Your task to perform on an android device: Go to Yahoo.com Image 0: 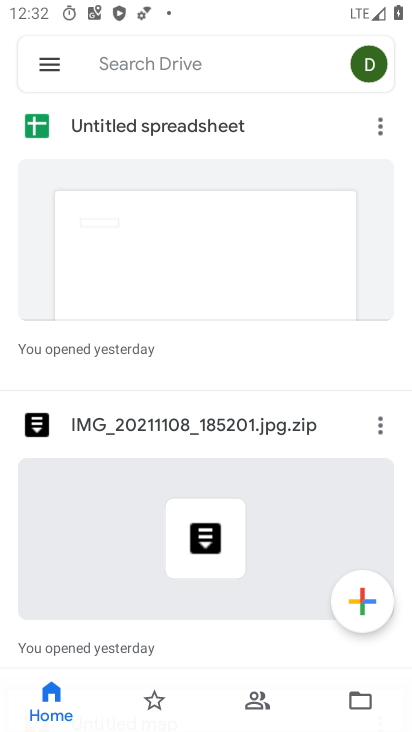
Step 0: press home button
Your task to perform on an android device: Go to Yahoo.com Image 1: 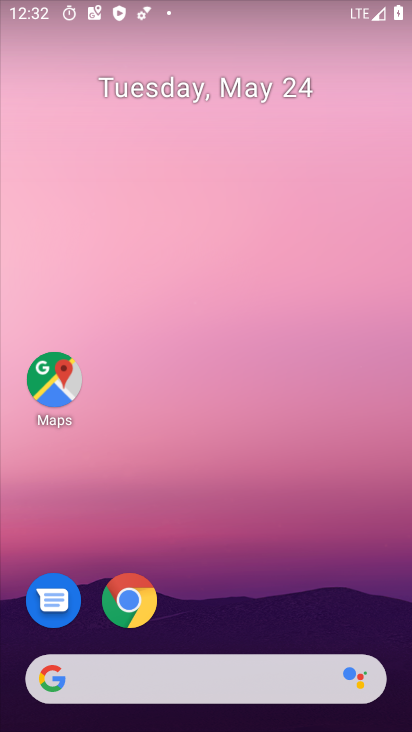
Step 1: click (131, 600)
Your task to perform on an android device: Go to Yahoo.com Image 2: 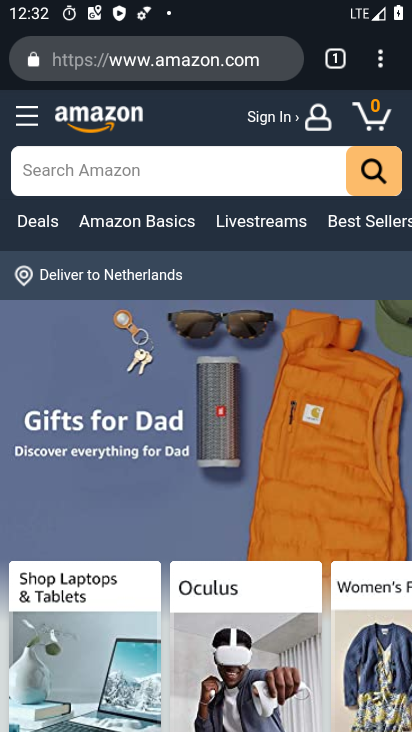
Step 2: click (192, 62)
Your task to perform on an android device: Go to Yahoo.com Image 3: 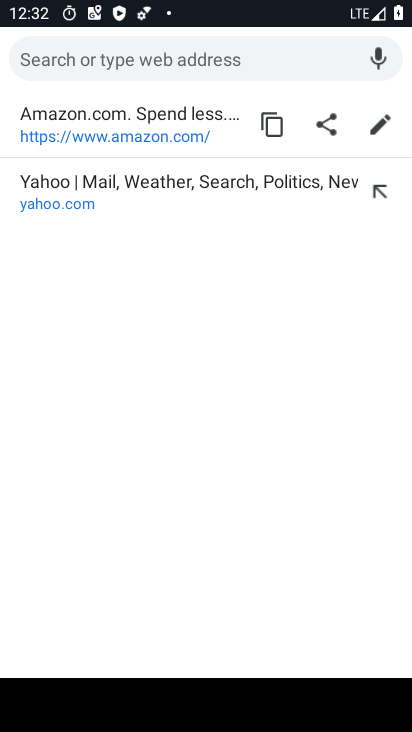
Step 3: click (63, 202)
Your task to perform on an android device: Go to Yahoo.com Image 4: 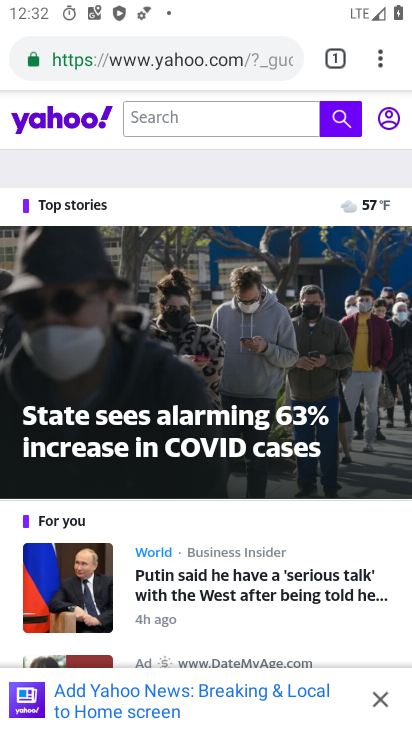
Step 4: task complete